Your task to perform on an android device: How much does the new iPad cost on eBay? Image 0: 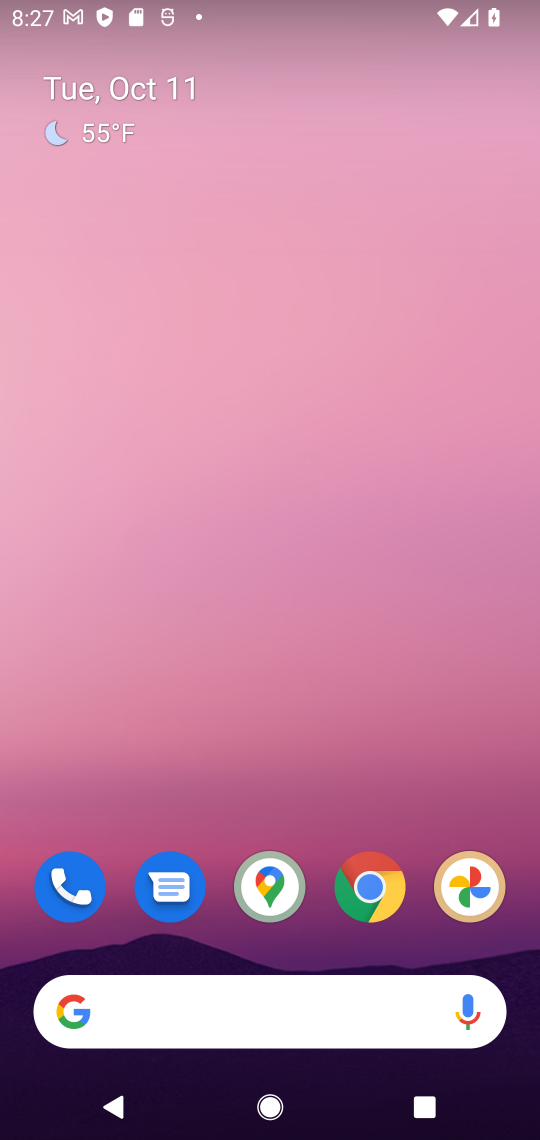
Step 0: click (374, 887)
Your task to perform on an android device: How much does the new iPad cost on eBay? Image 1: 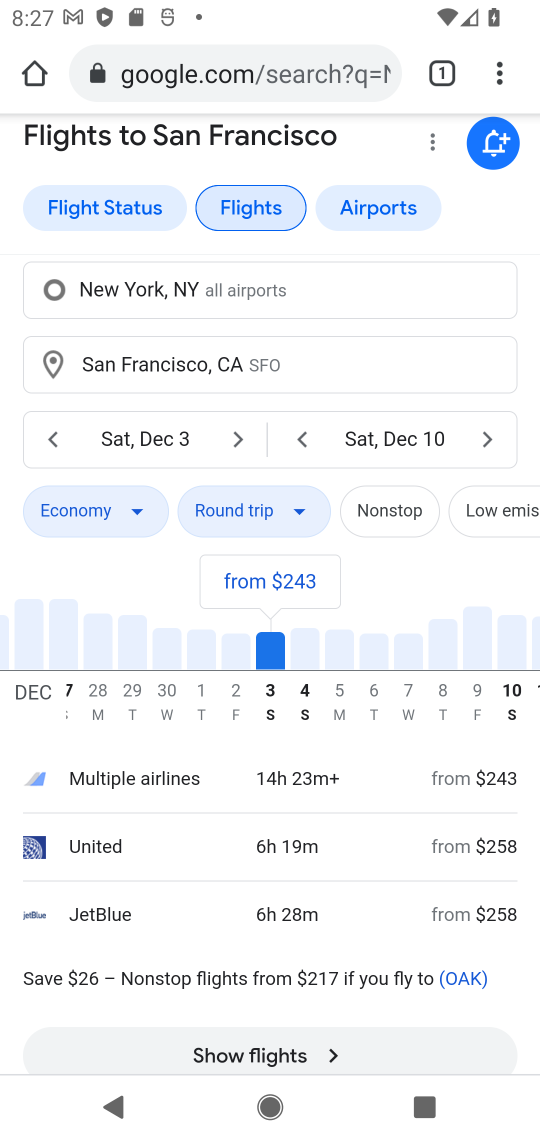
Step 1: click (284, 76)
Your task to perform on an android device: How much does the new iPad cost on eBay? Image 2: 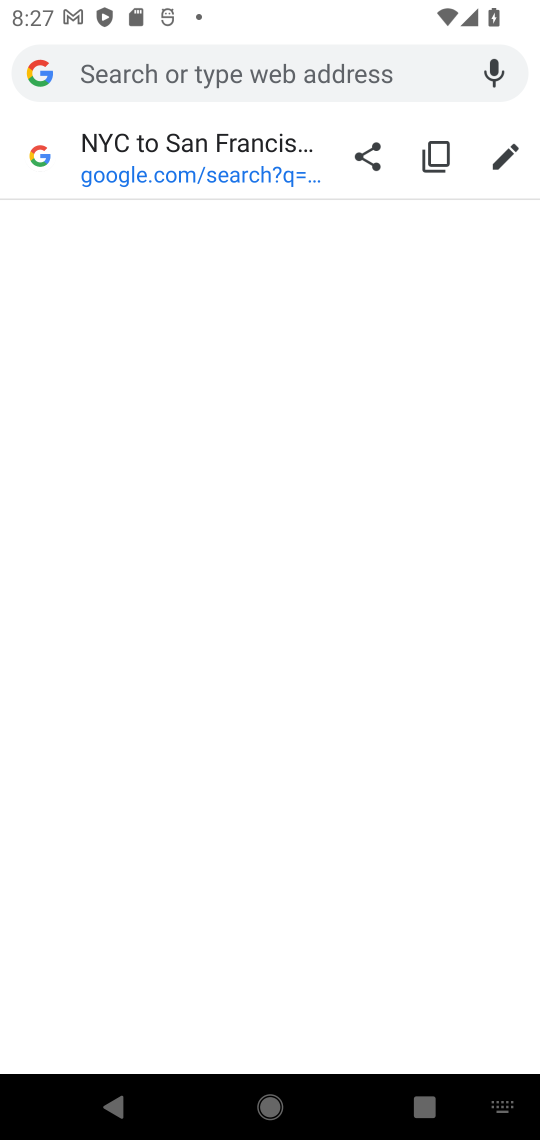
Step 2: type "new iPad cost on eBay"
Your task to perform on an android device: How much does the new iPad cost on eBay? Image 3: 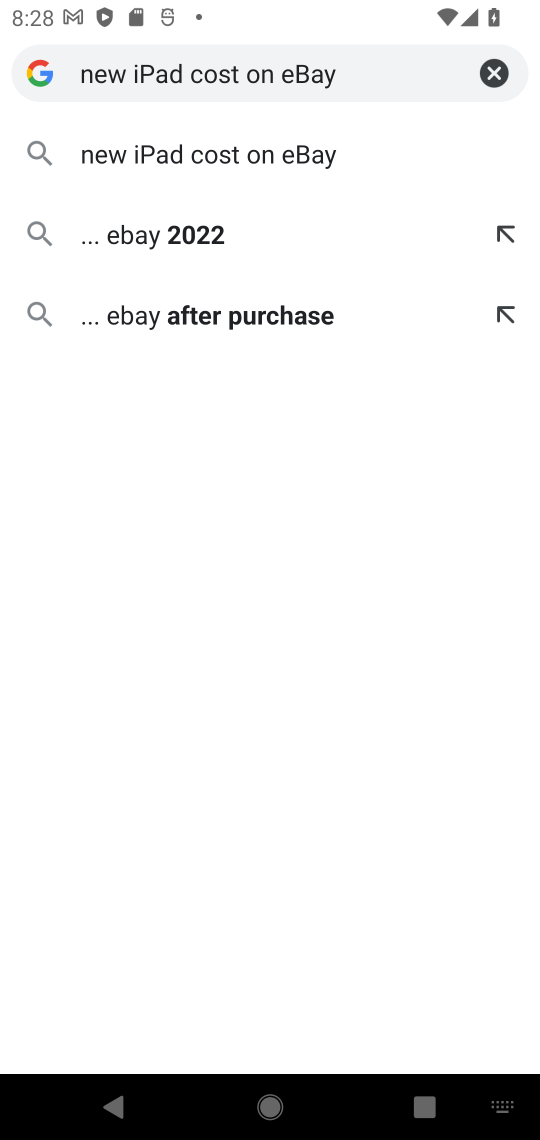
Step 3: click (291, 162)
Your task to perform on an android device: How much does the new iPad cost on eBay? Image 4: 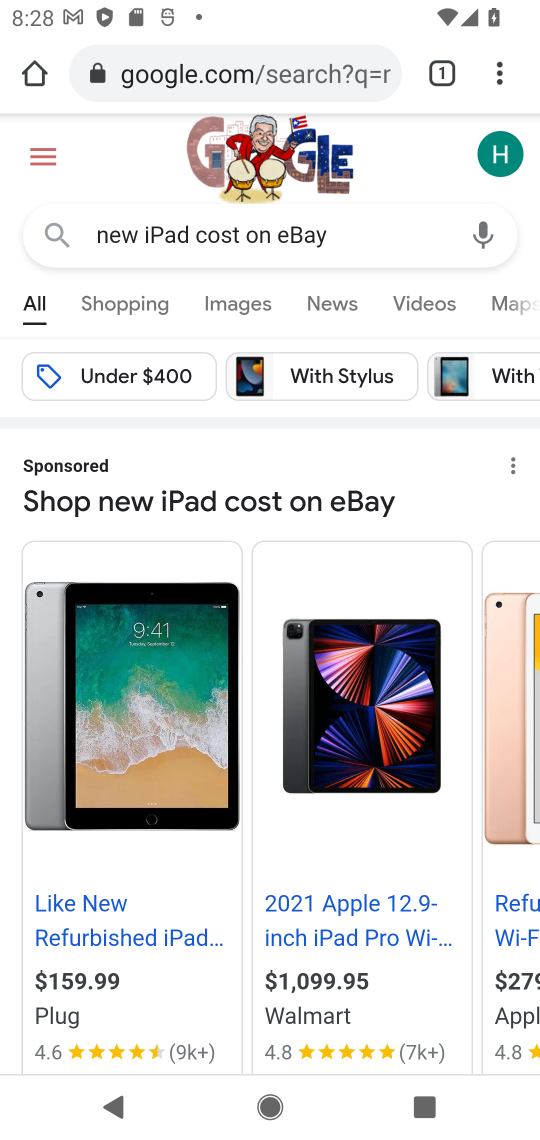
Step 4: drag from (365, 657) to (337, 417)
Your task to perform on an android device: How much does the new iPad cost on eBay? Image 5: 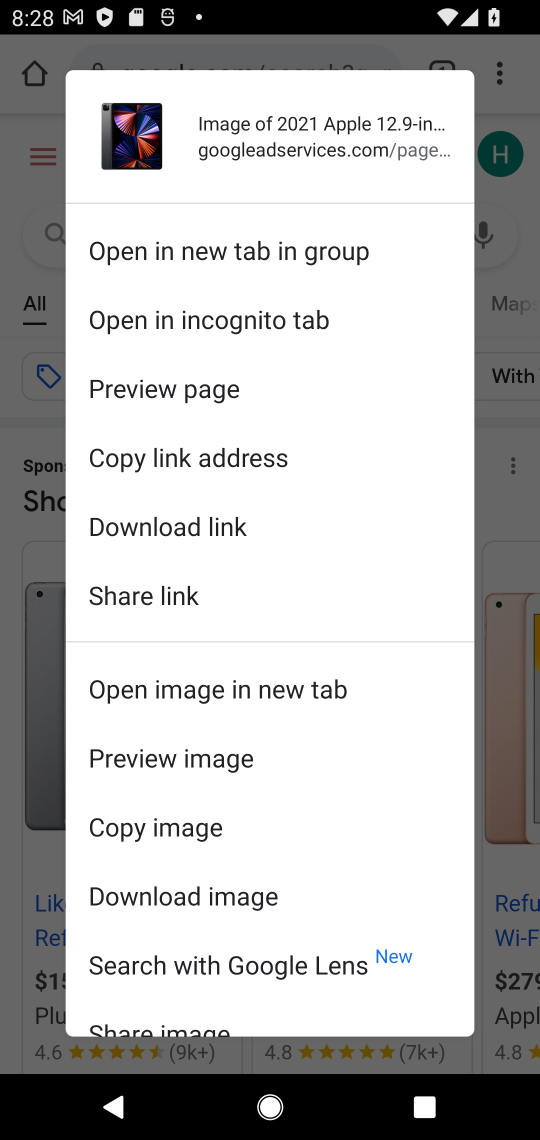
Step 5: click (519, 655)
Your task to perform on an android device: How much does the new iPad cost on eBay? Image 6: 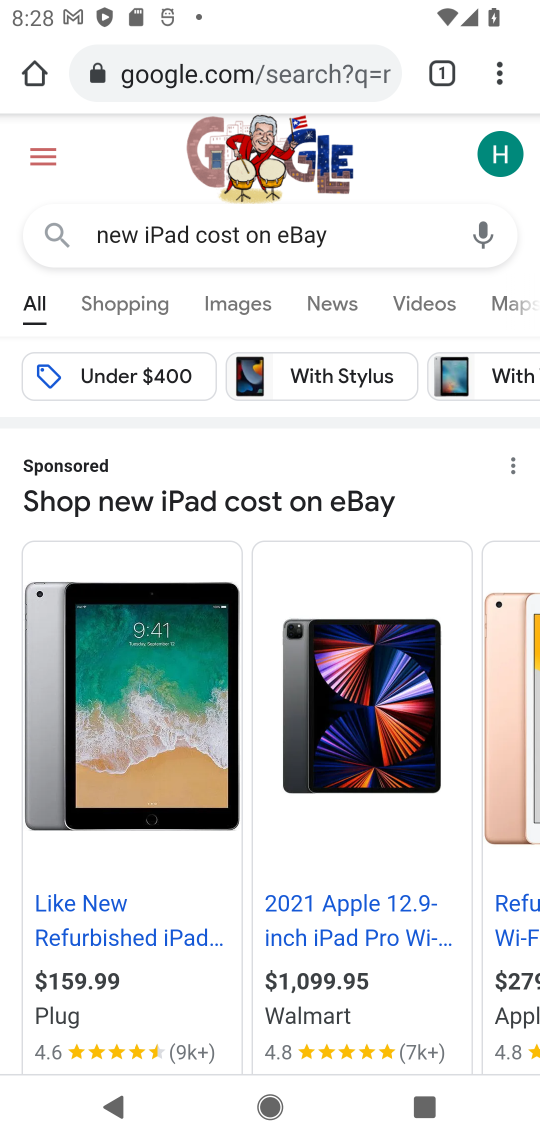
Step 6: drag from (480, 917) to (438, 601)
Your task to perform on an android device: How much does the new iPad cost on eBay? Image 7: 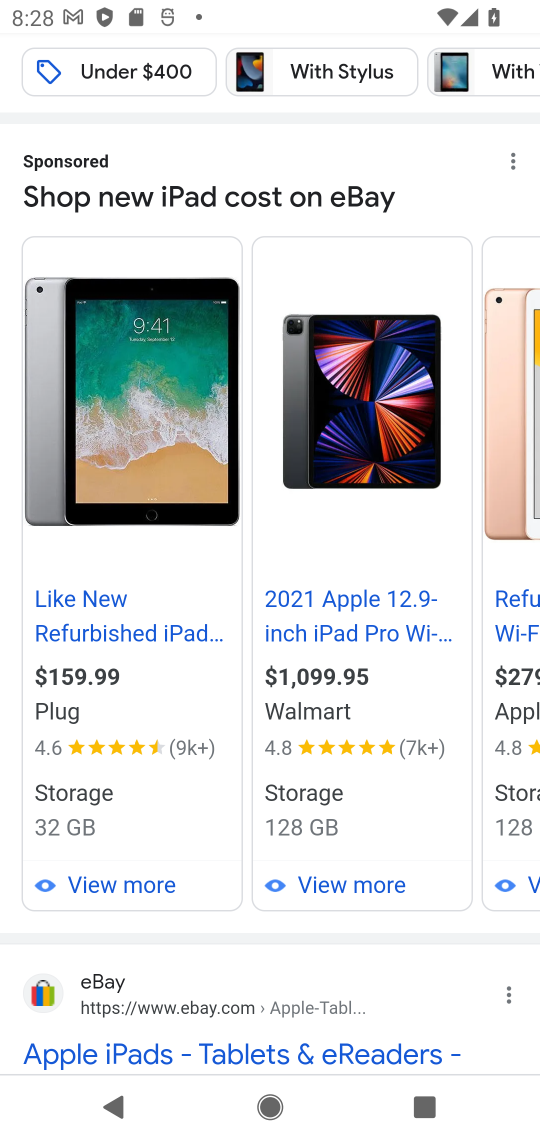
Step 7: click (199, 1048)
Your task to perform on an android device: How much does the new iPad cost on eBay? Image 8: 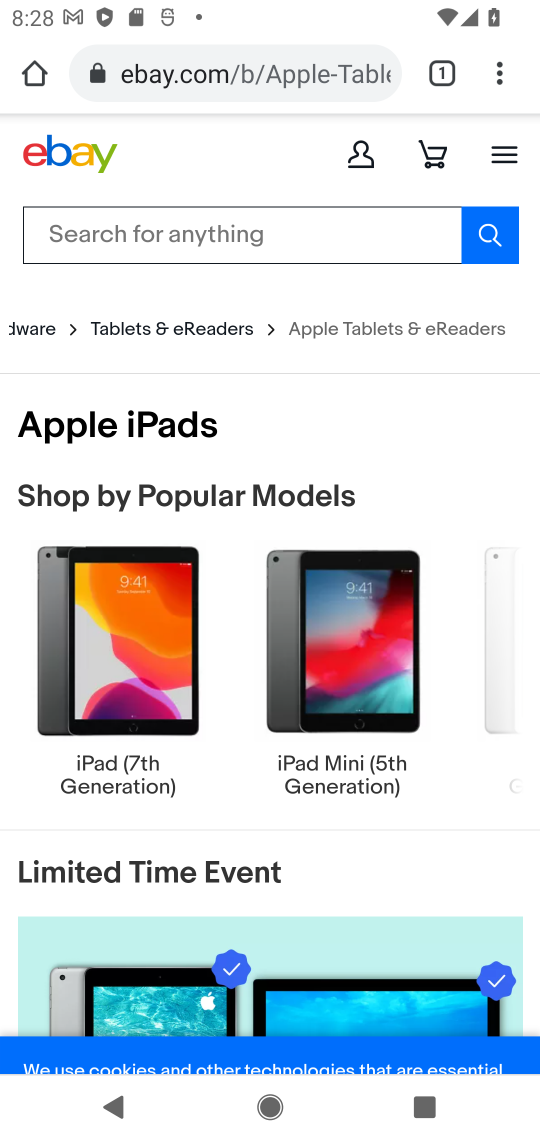
Step 8: drag from (486, 837) to (445, 537)
Your task to perform on an android device: How much does the new iPad cost on eBay? Image 9: 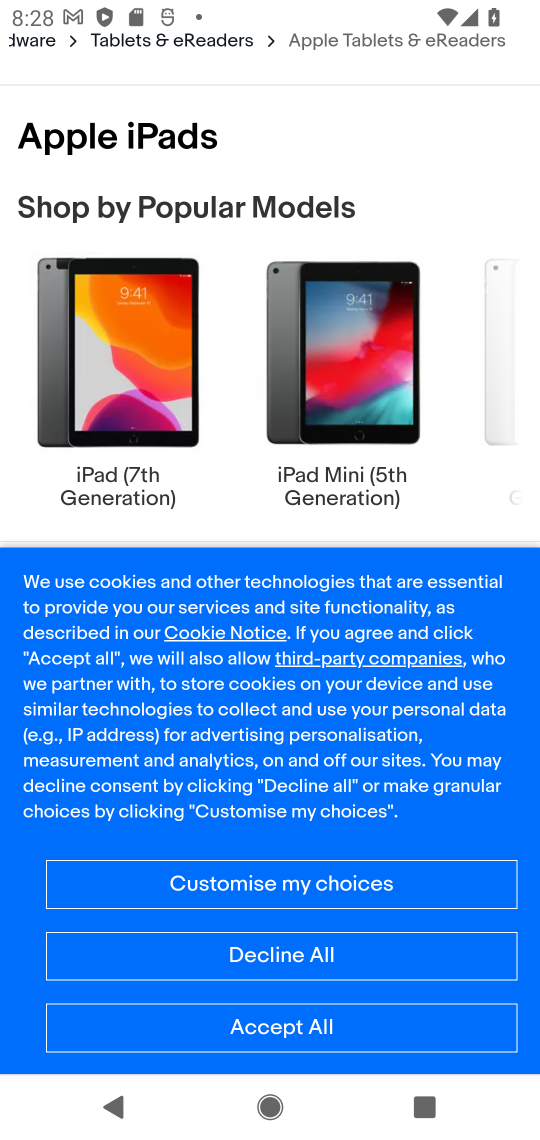
Step 9: click (320, 1024)
Your task to perform on an android device: How much does the new iPad cost on eBay? Image 10: 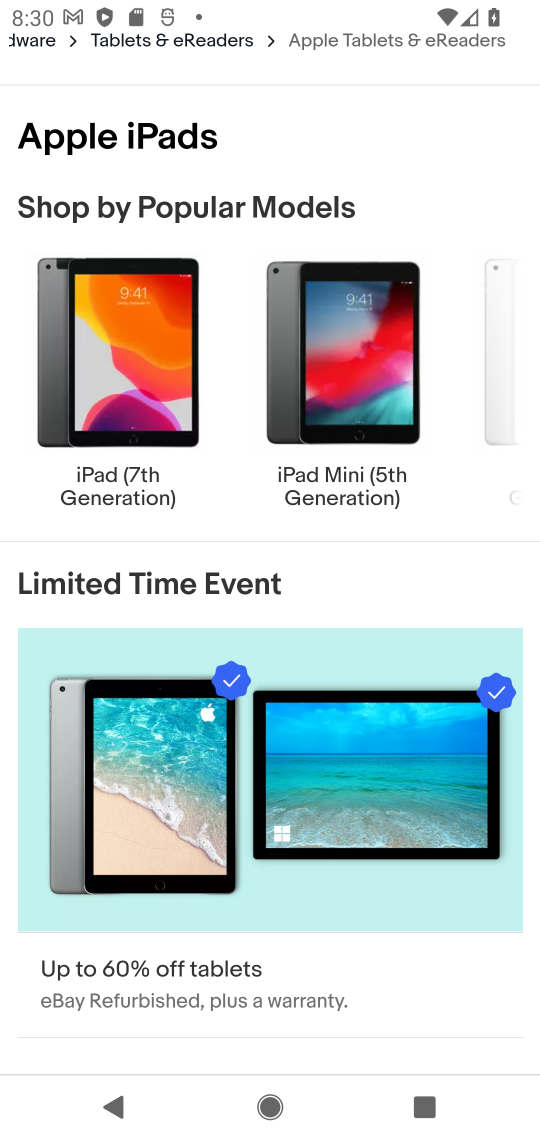
Step 10: task complete